Your task to perform on an android device: turn on the 12-hour format for clock Image 0: 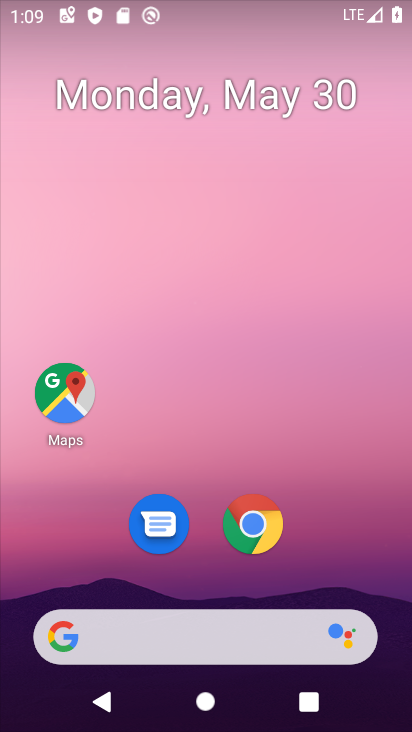
Step 0: drag from (341, 414) to (329, 3)
Your task to perform on an android device: turn on the 12-hour format for clock Image 1: 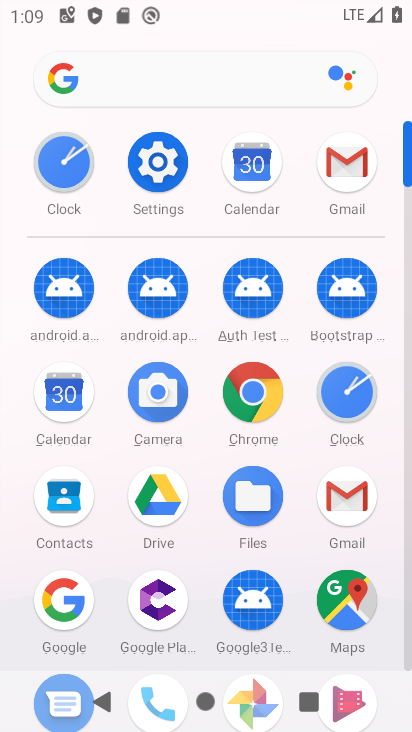
Step 1: click (79, 162)
Your task to perform on an android device: turn on the 12-hour format for clock Image 2: 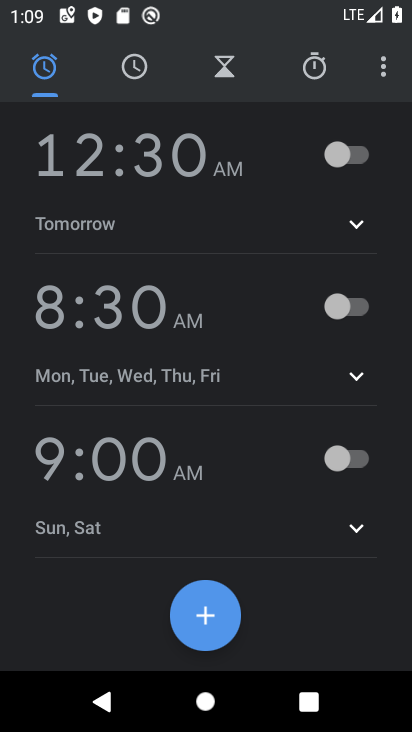
Step 2: click (383, 78)
Your task to perform on an android device: turn on the 12-hour format for clock Image 3: 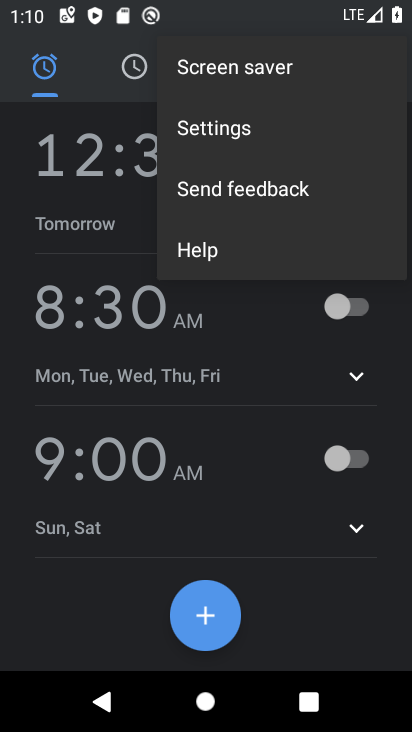
Step 3: click (307, 128)
Your task to perform on an android device: turn on the 12-hour format for clock Image 4: 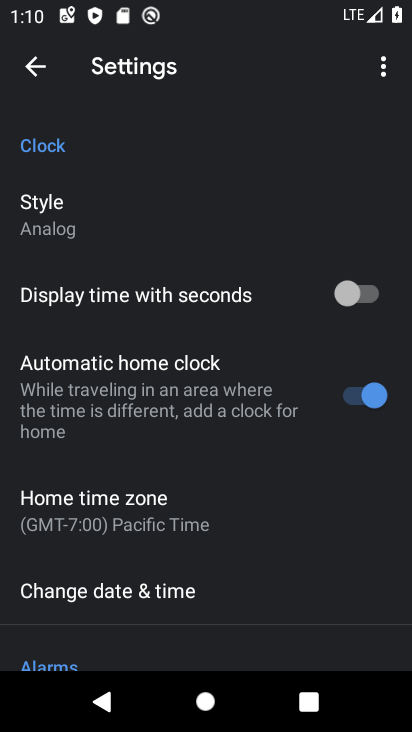
Step 4: click (237, 598)
Your task to perform on an android device: turn on the 12-hour format for clock Image 5: 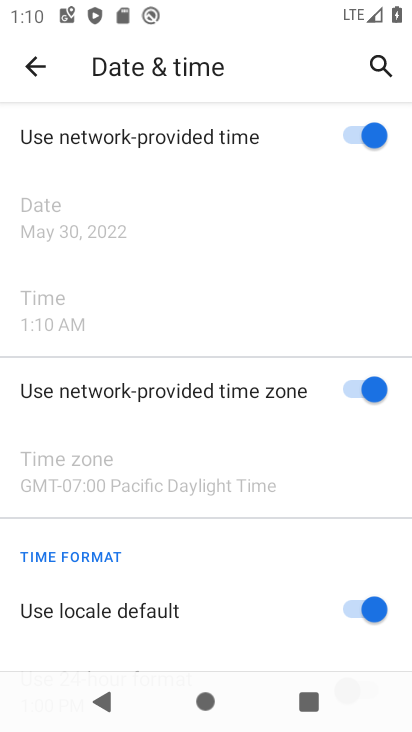
Step 5: task complete